Your task to perform on an android device: Open accessibility settings Image 0: 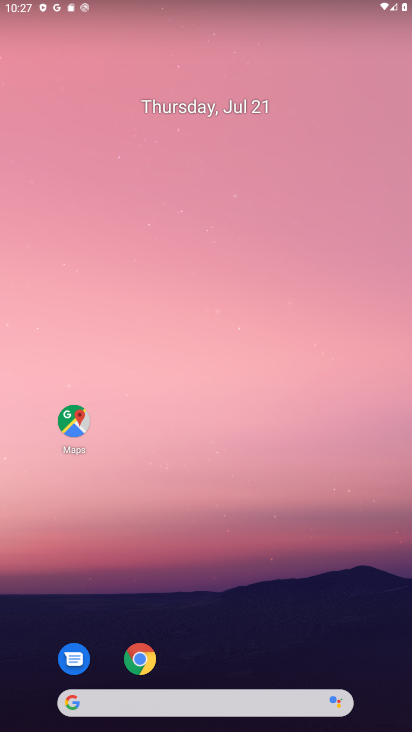
Step 0: drag from (303, 633) to (264, 40)
Your task to perform on an android device: Open accessibility settings Image 1: 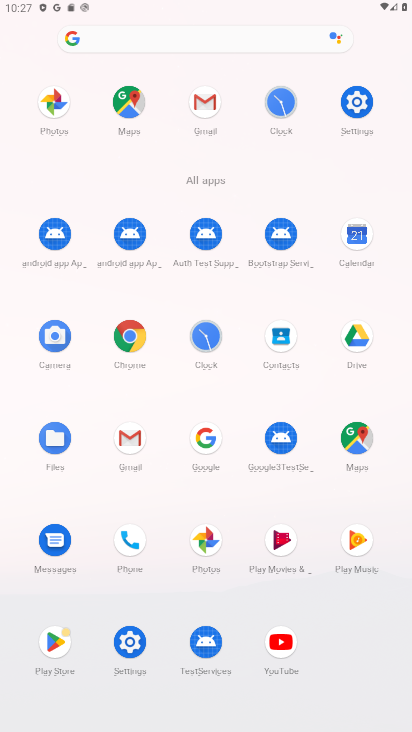
Step 1: click (357, 123)
Your task to perform on an android device: Open accessibility settings Image 2: 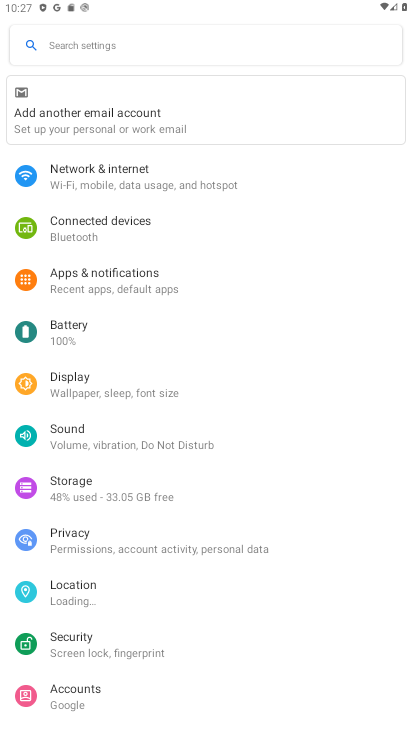
Step 2: drag from (201, 663) to (149, 235)
Your task to perform on an android device: Open accessibility settings Image 3: 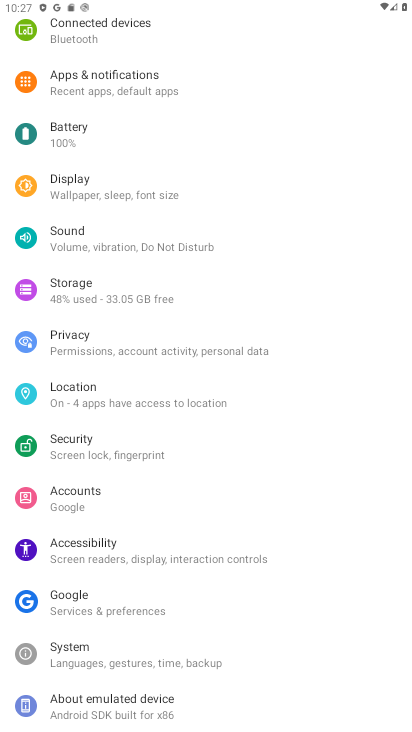
Step 3: click (153, 561)
Your task to perform on an android device: Open accessibility settings Image 4: 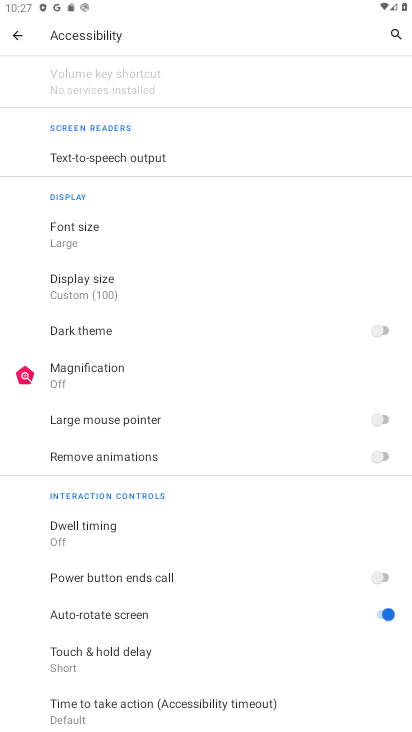
Step 4: task complete